Your task to perform on an android device: uninstall "ColorNote Notepad Notes" Image 0: 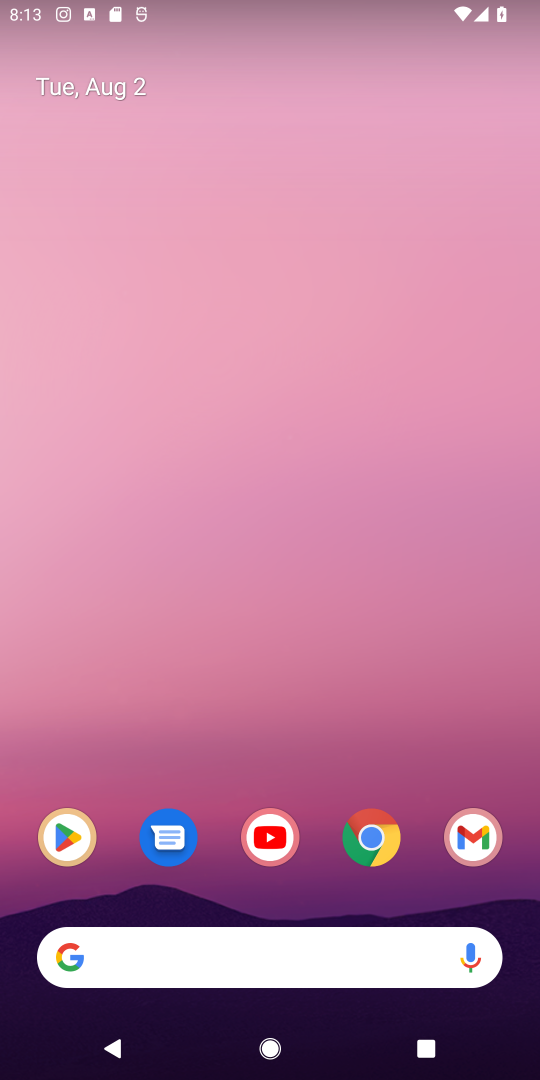
Step 0: click (64, 850)
Your task to perform on an android device: uninstall "ColorNote Notepad Notes" Image 1: 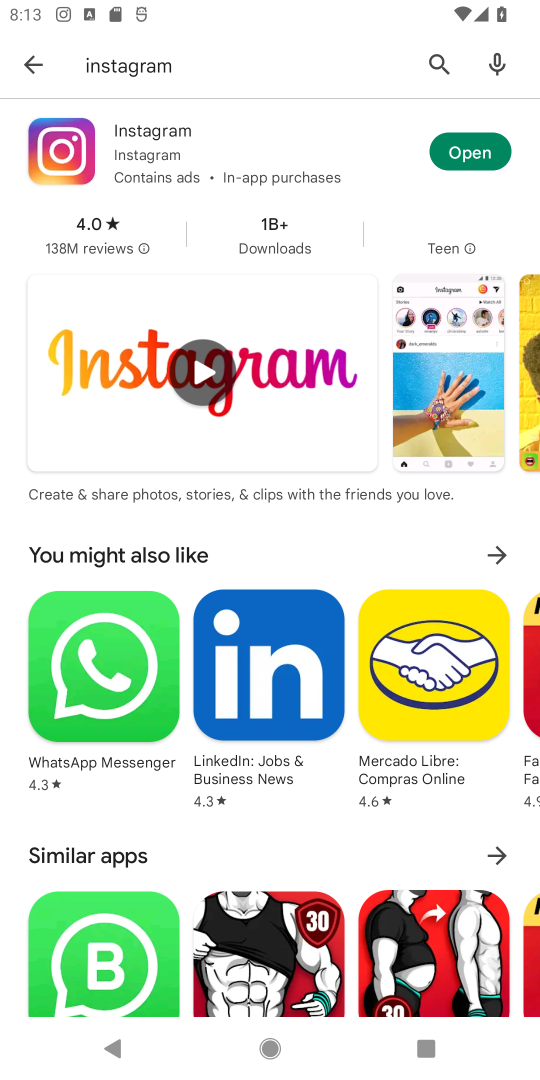
Step 1: click (427, 57)
Your task to perform on an android device: uninstall "ColorNote Notepad Notes" Image 2: 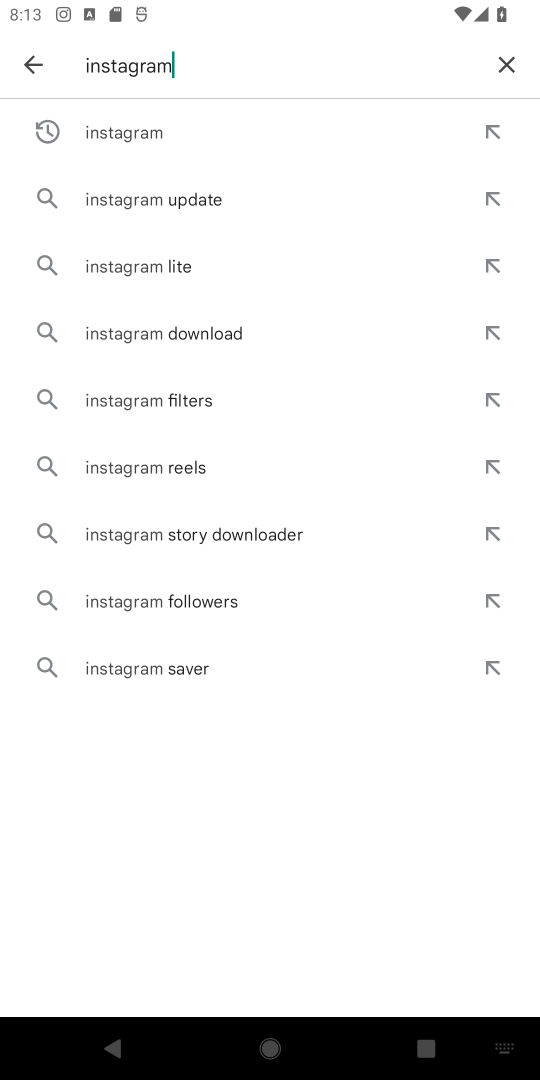
Step 2: click (515, 63)
Your task to perform on an android device: uninstall "ColorNote Notepad Notes" Image 3: 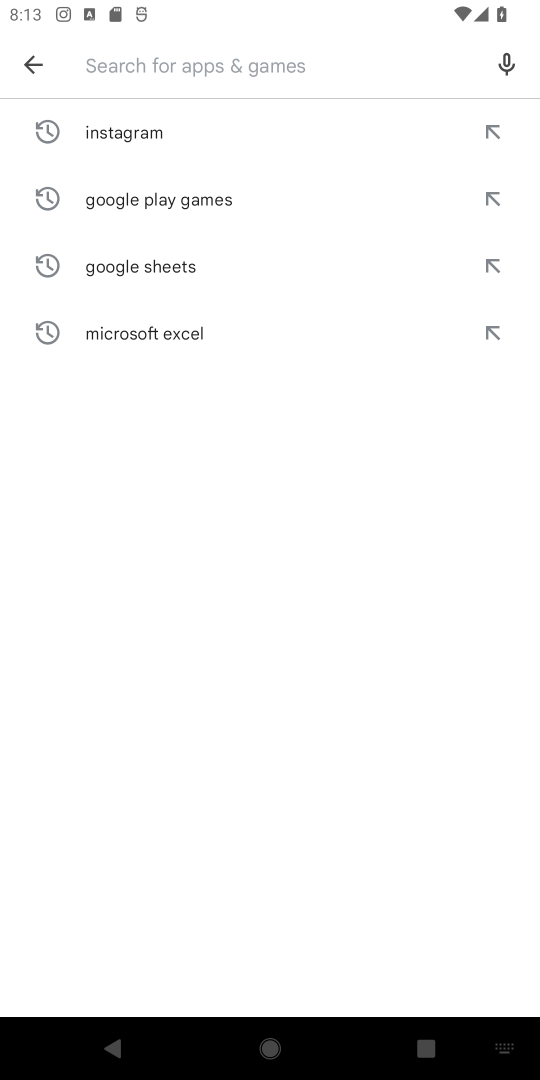
Step 3: type "ColorNote Notepad Notes"
Your task to perform on an android device: uninstall "ColorNote Notepad Notes" Image 4: 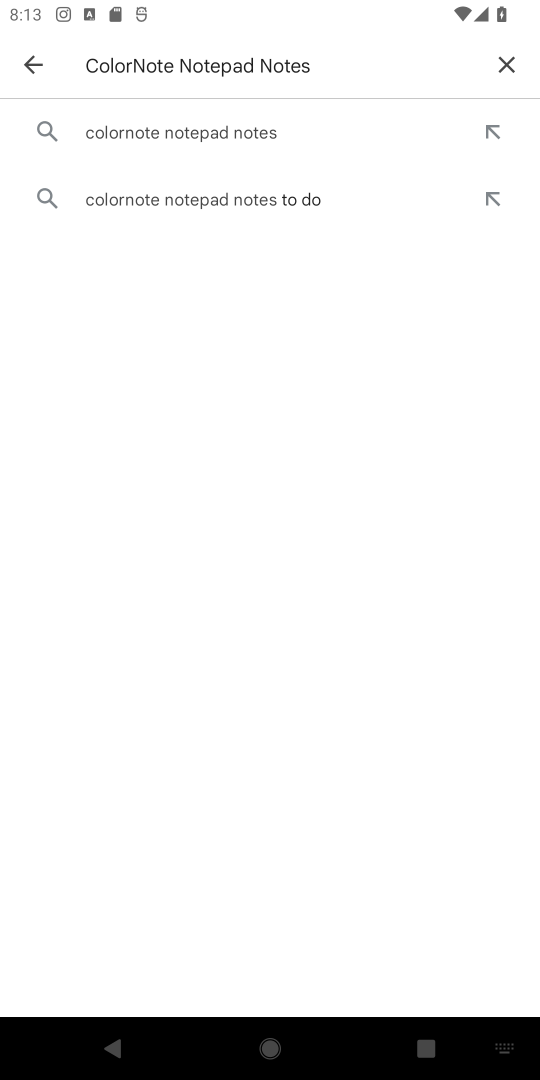
Step 4: click (139, 144)
Your task to perform on an android device: uninstall "ColorNote Notepad Notes" Image 5: 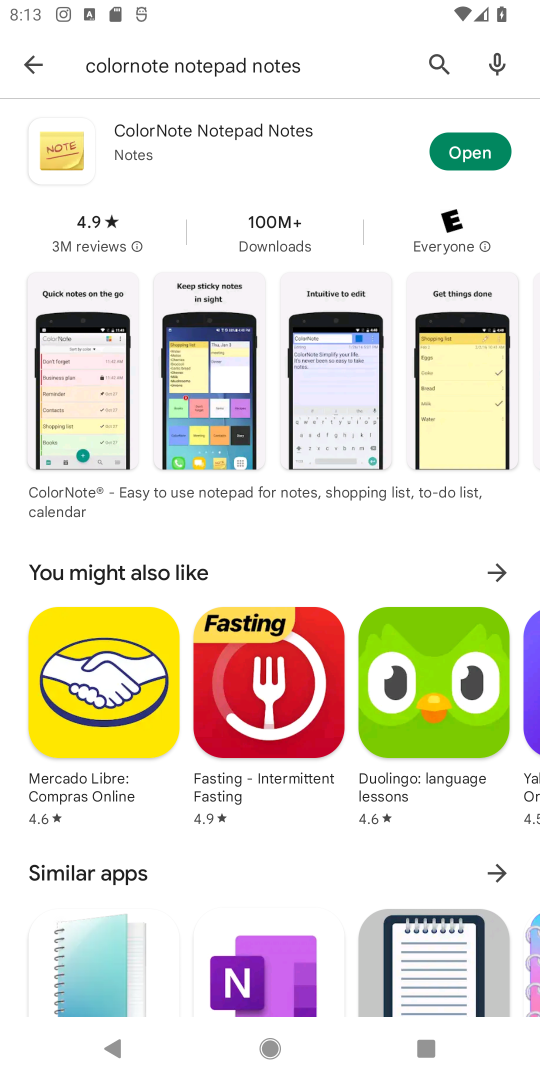
Step 5: click (134, 144)
Your task to perform on an android device: uninstall "ColorNote Notepad Notes" Image 6: 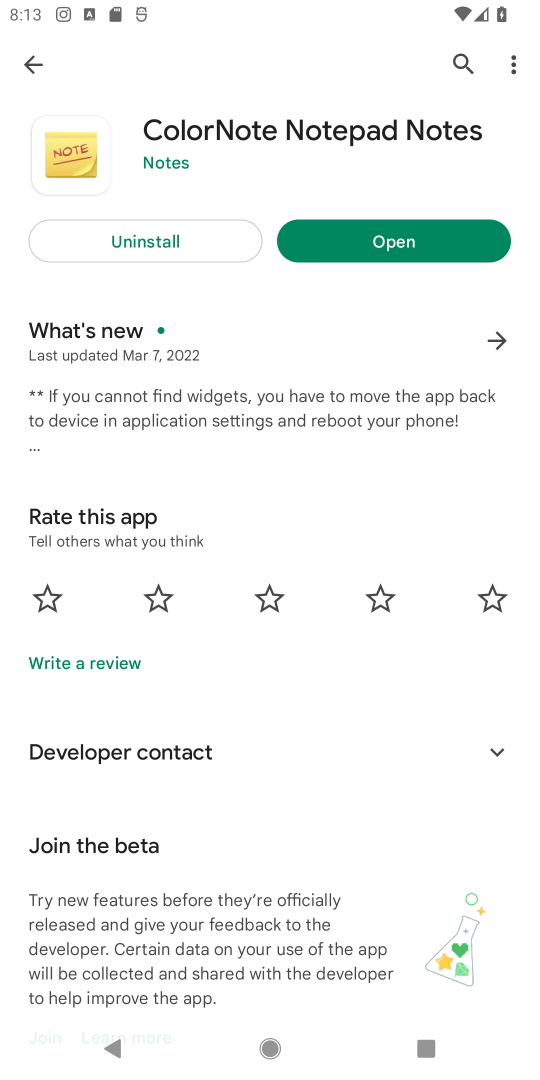
Step 6: click (132, 240)
Your task to perform on an android device: uninstall "ColorNote Notepad Notes" Image 7: 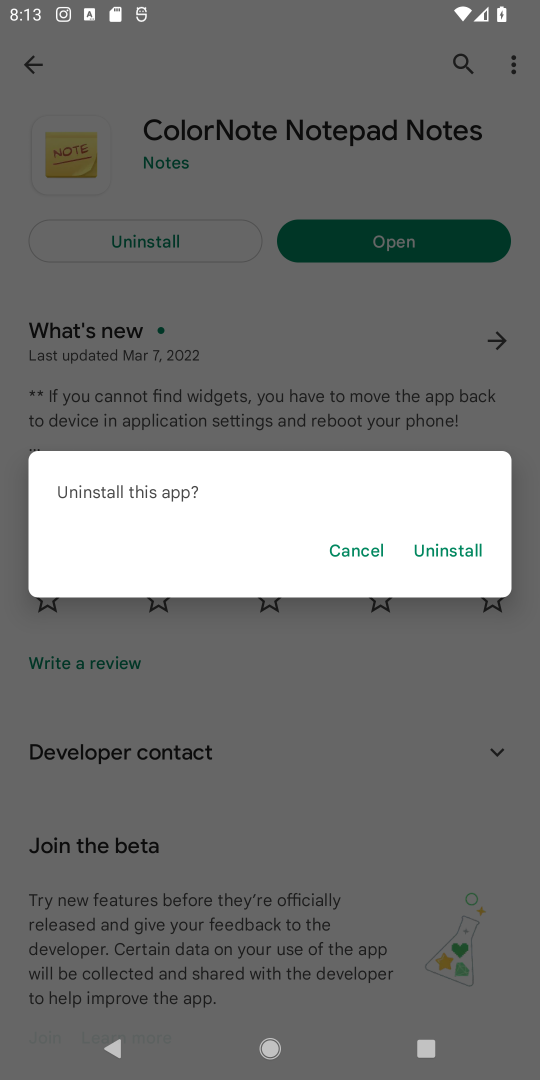
Step 7: click (461, 561)
Your task to perform on an android device: uninstall "ColorNote Notepad Notes" Image 8: 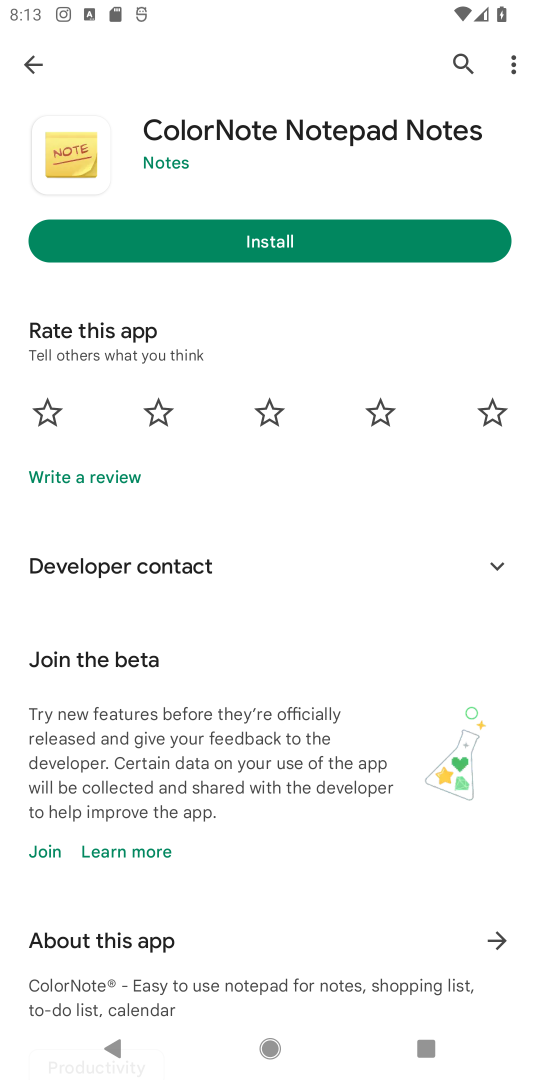
Step 8: task complete